Your task to perform on an android device: add a contact Image 0: 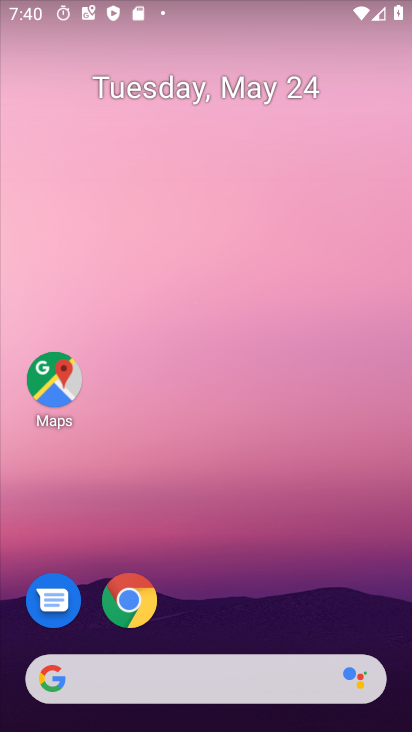
Step 0: drag from (235, 550) to (302, 46)
Your task to perform on an android device: add a contact Image 1: 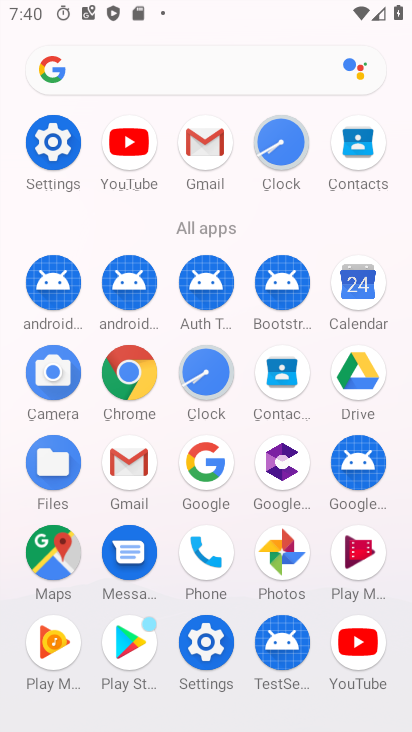
Step 1: click (286, 365)
Your task to perform on an android device: add a contact Image 2: 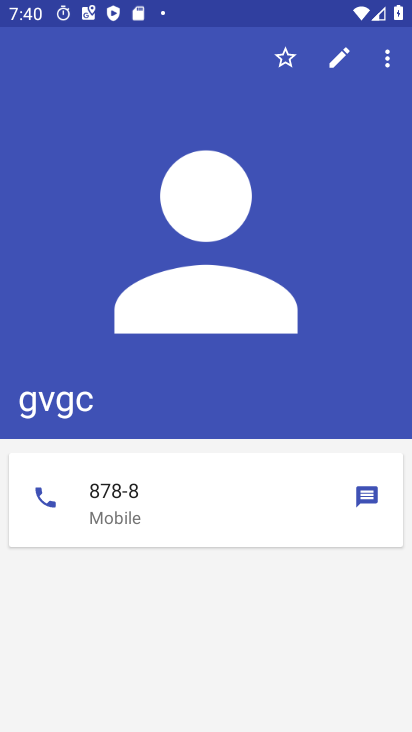
Step 2: press back button
Your task to perform on an android device: add a contact Image 3: 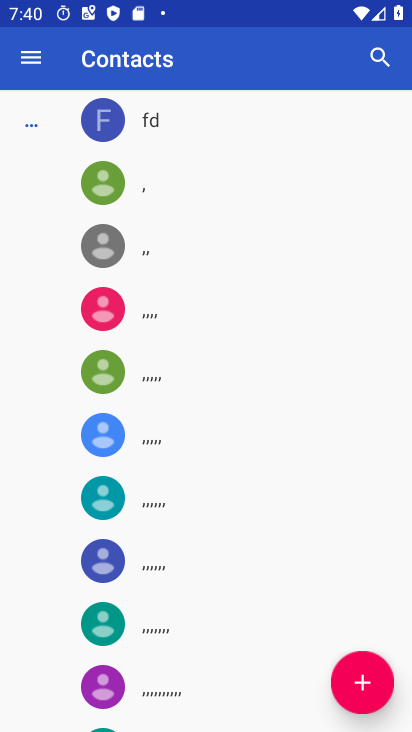
Step 3: click (361, 676)
Your task to perform on an android device: add a contact Image 4: 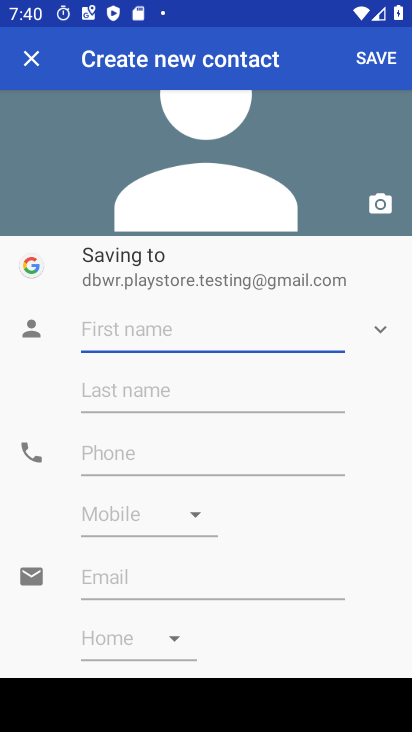
Step 4: click (98, 331)
Your task to perform on an android device: add a contact Image 5: 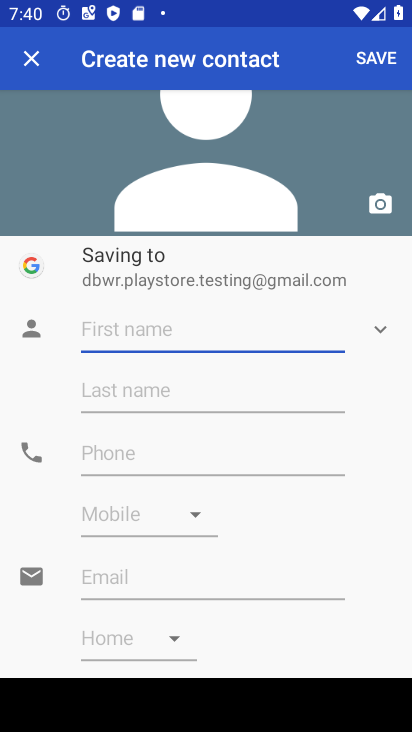
Step 5: type "vhvhv"
Your task to perform on an android device: add a contact Image 6: 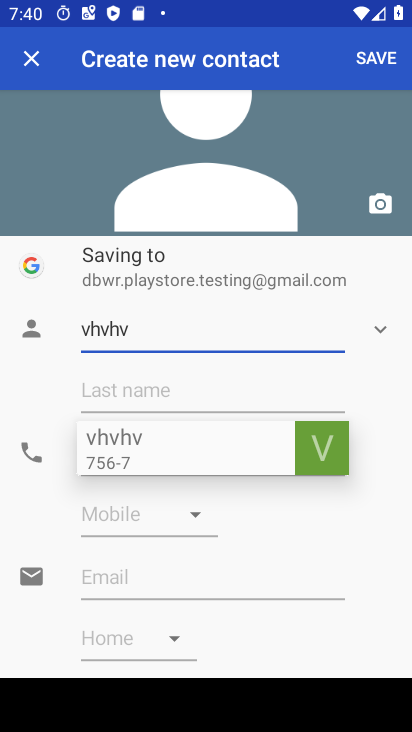
Step 6: click (202, 459)
Your task to perform on an android device: add a contact Image 7: 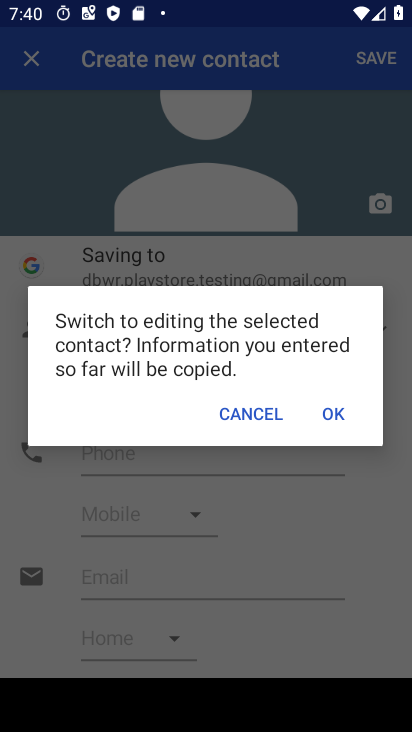
Step 7: click (320, 417)
Your task to perform on an android device: add a contact Image 8: 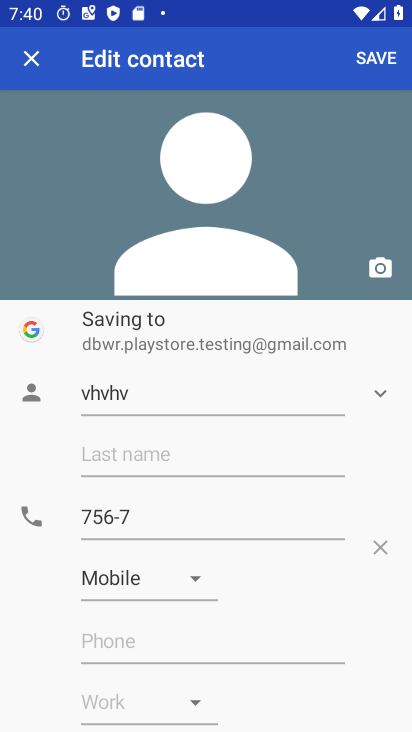
Step 8: click (371, 53)
Your task to perform on an android device: add a contact Image 9: 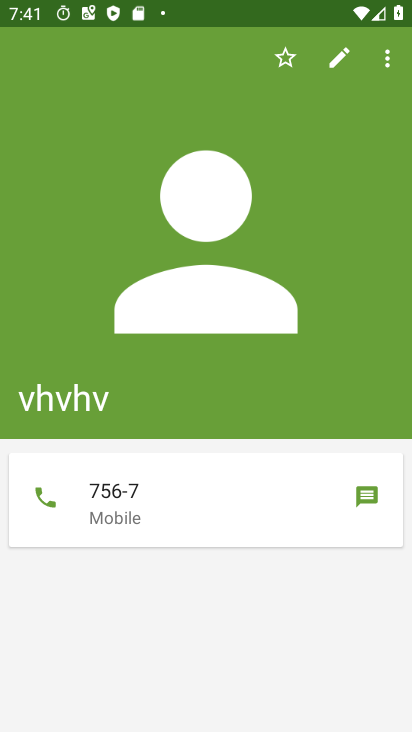
Step 9: task complete